Your task to perform on an android device: turn on data saver in the chrome app Image 0: 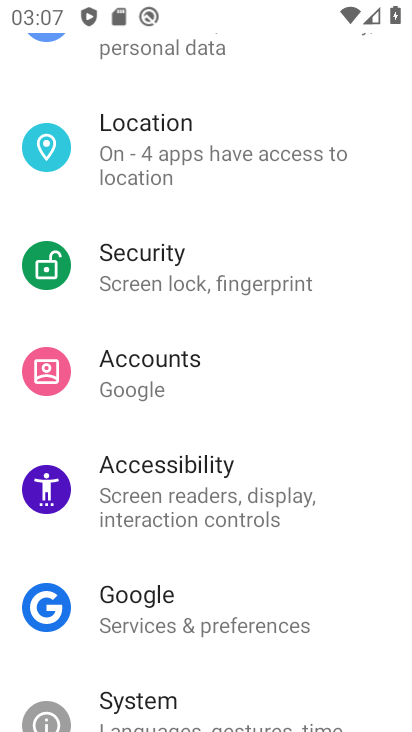
Step 0: press back button
Your task to perform on an android device: turn on data saver in the chrome app Image 1: 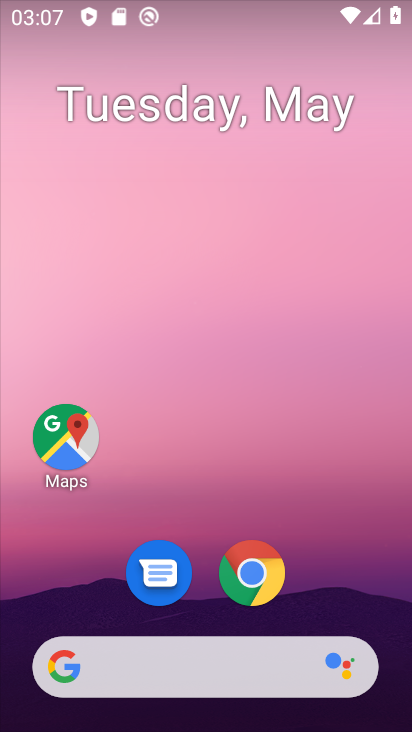
Step 1: click (257, 578)
Your task to perform on an android device: turn on data saver in the chrome app Image 2: 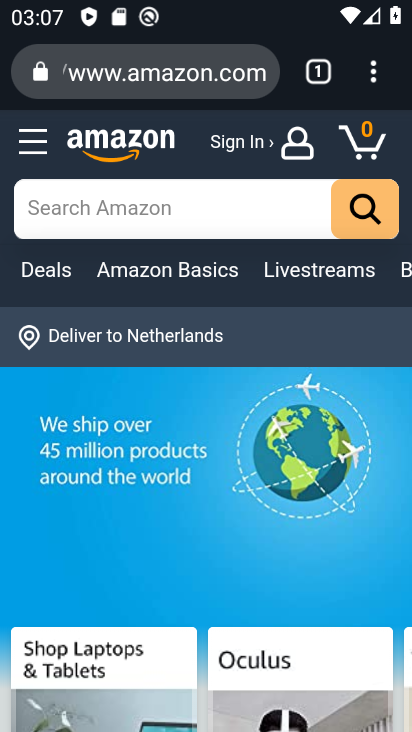
Step 2: drag from (366, 66) to (187, 566)
Your task to perform on an android device: turn on data saver in the chrome app Image 3: 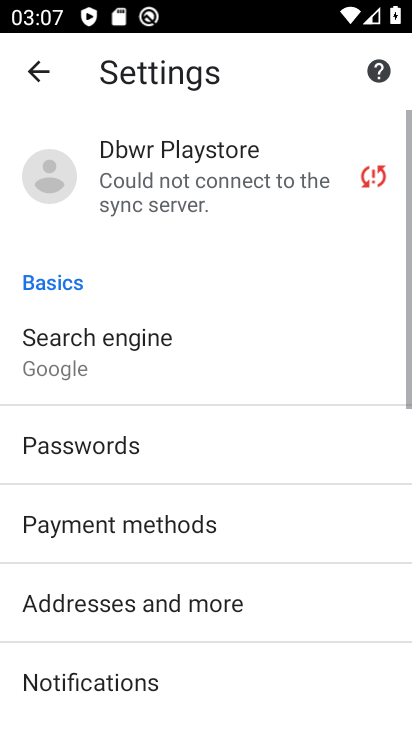
Step 3: drag from (196, 642) to (256, 32)
Your task to perform on an android device: turn on data saver in the chrome app Image 4: 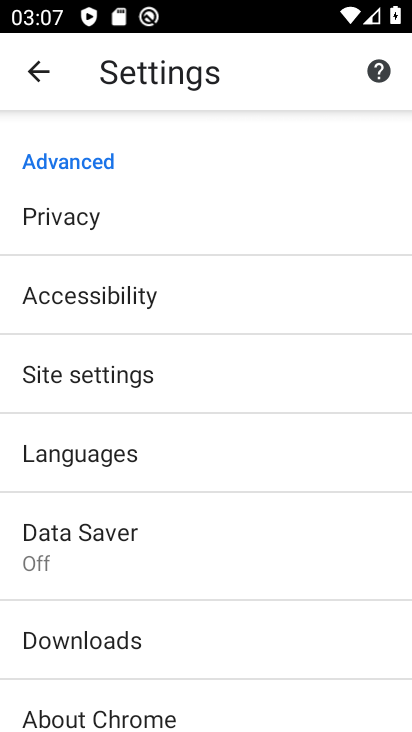
Step 4: click (79, 543)
Your task to perform on an android device: turn on data saver in the chrome app Image 5: 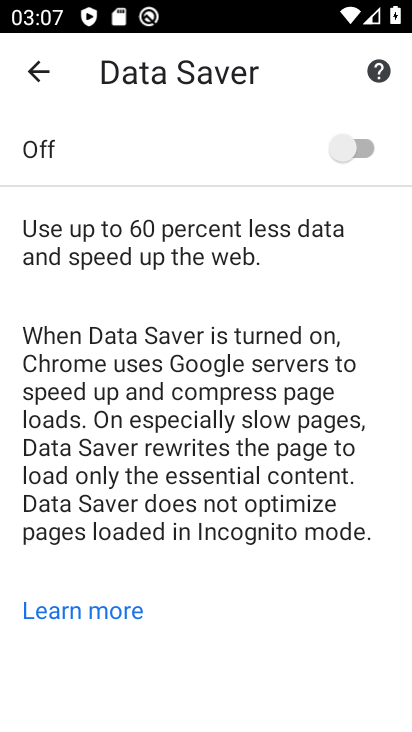
Step 5: click (354, 137)
Your task to perform on an android device: turn on data saver in the chrome app Image 6: 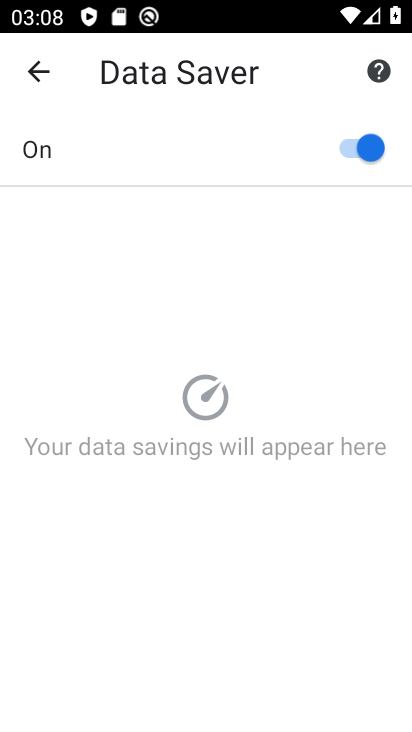
Step 6: task complete